Your task to perform on an android device: Go to battery settings Image 0: 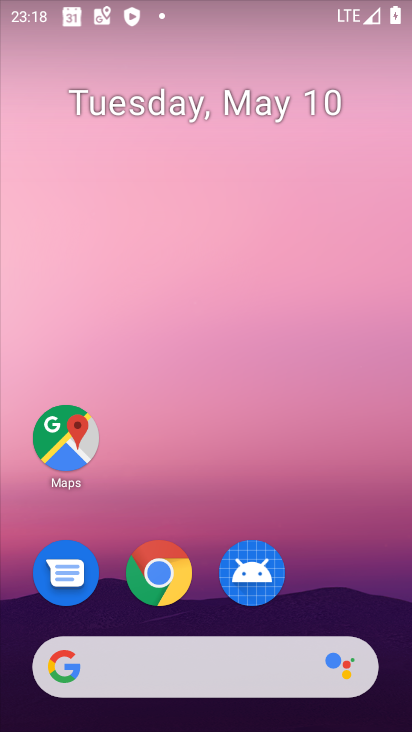
Step 0: drag from (311, 526) to (227, 25)
Your task to perform on an android device: Go to battery settings Image 1: 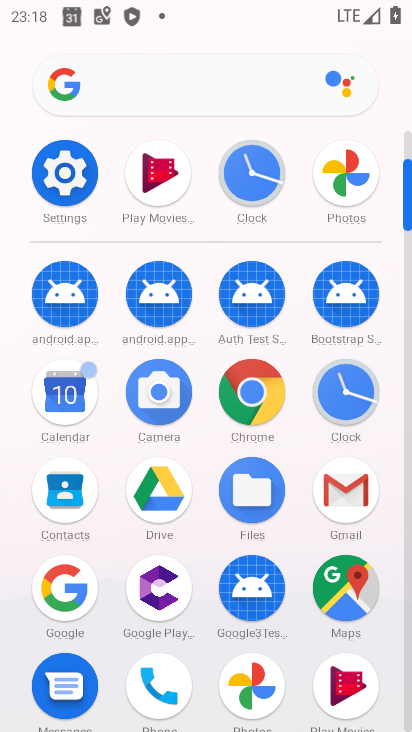
Step 1: click (52, 164)
Your task to perform on an android device: Go to battery settings Image 2: 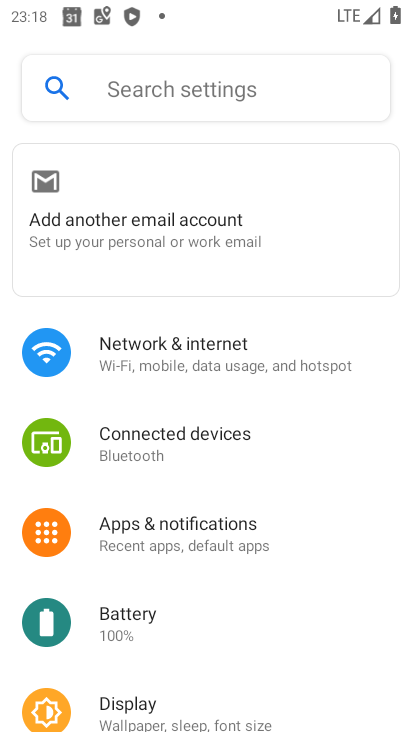
Step 2: click (136, 623)
Your task to perform on an android device: Go to battery settings Image 3: 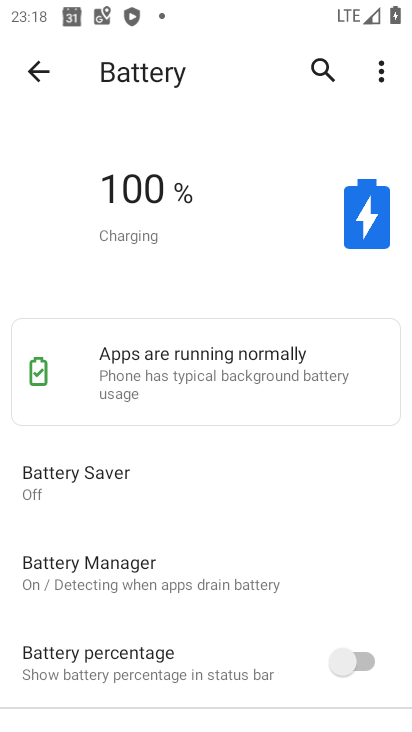
Step 3: task complete